Your task to perform on an android device: open a new tab in the chrome app Image 0: 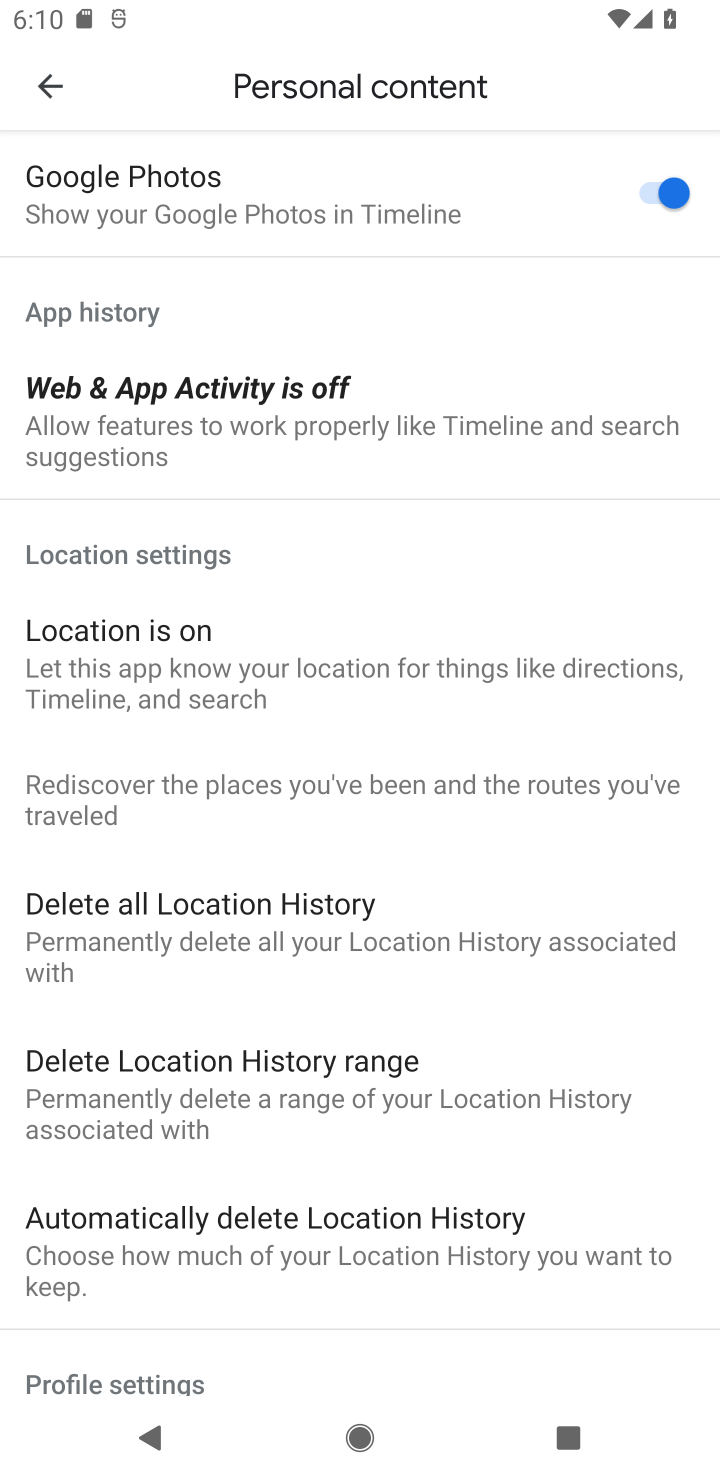
Step 0: press home button
Your task to perform on an android device: open a new tab in the chrome app Image 1: 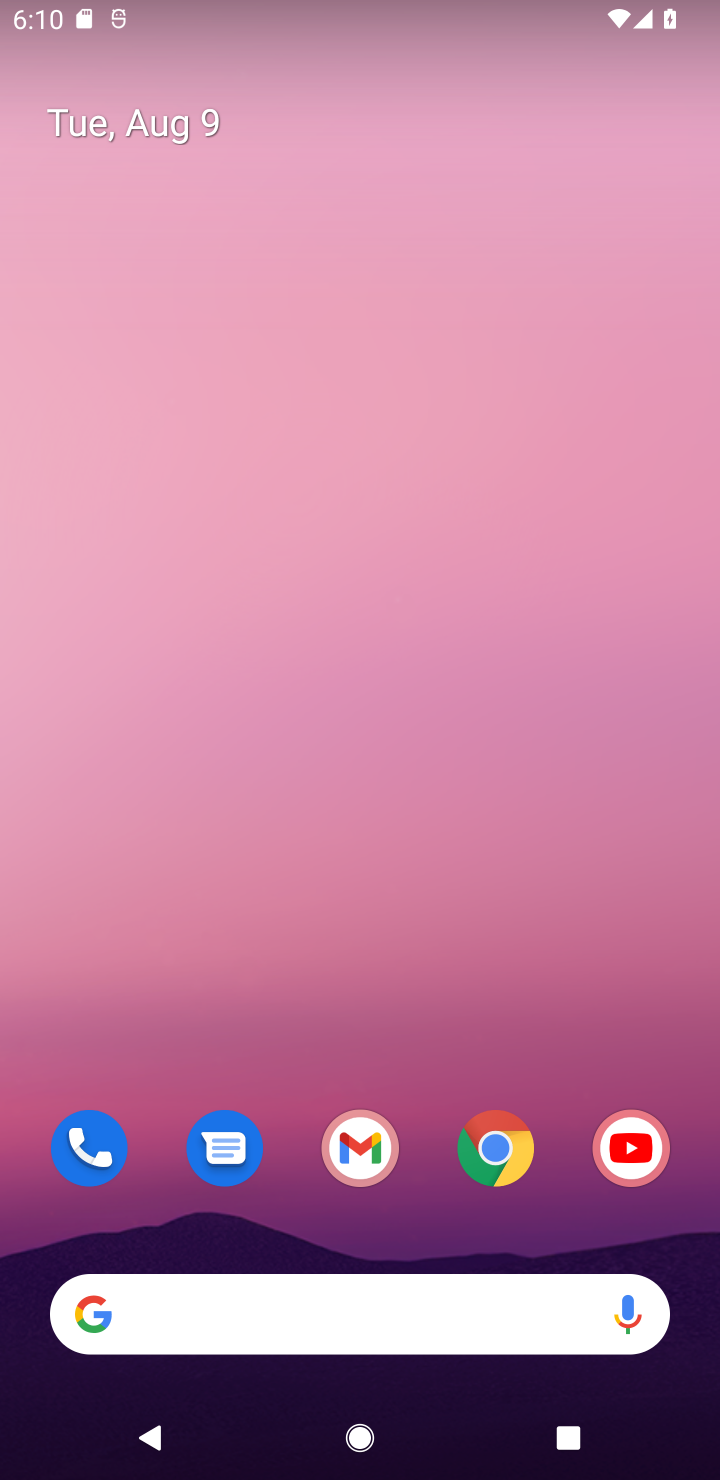
Step 1: click (494, 1148)
Your task to perform on an android device: open a new tab in the chrome app Image 2: 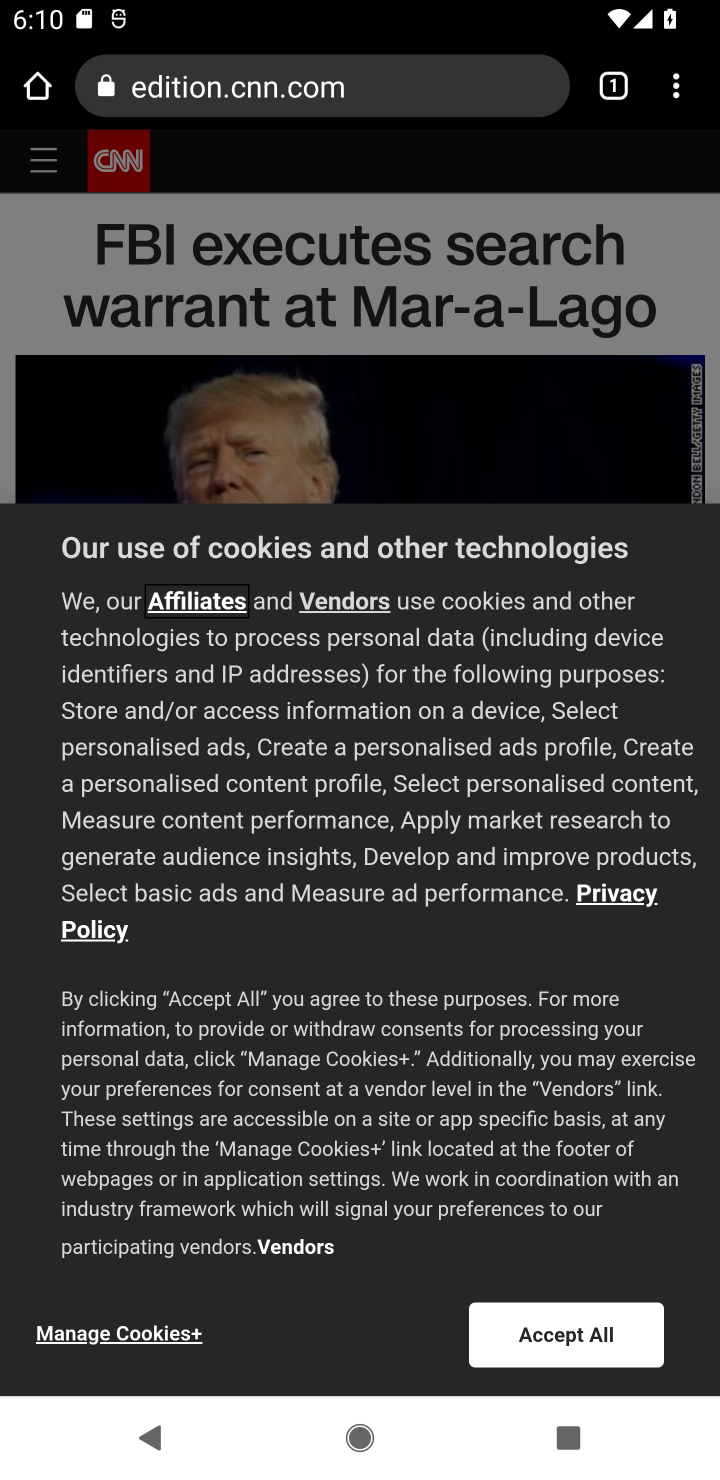
Step 2: click (674, 75)
Your task to perform on an android device: open a new tab in the chrome app Image 3: 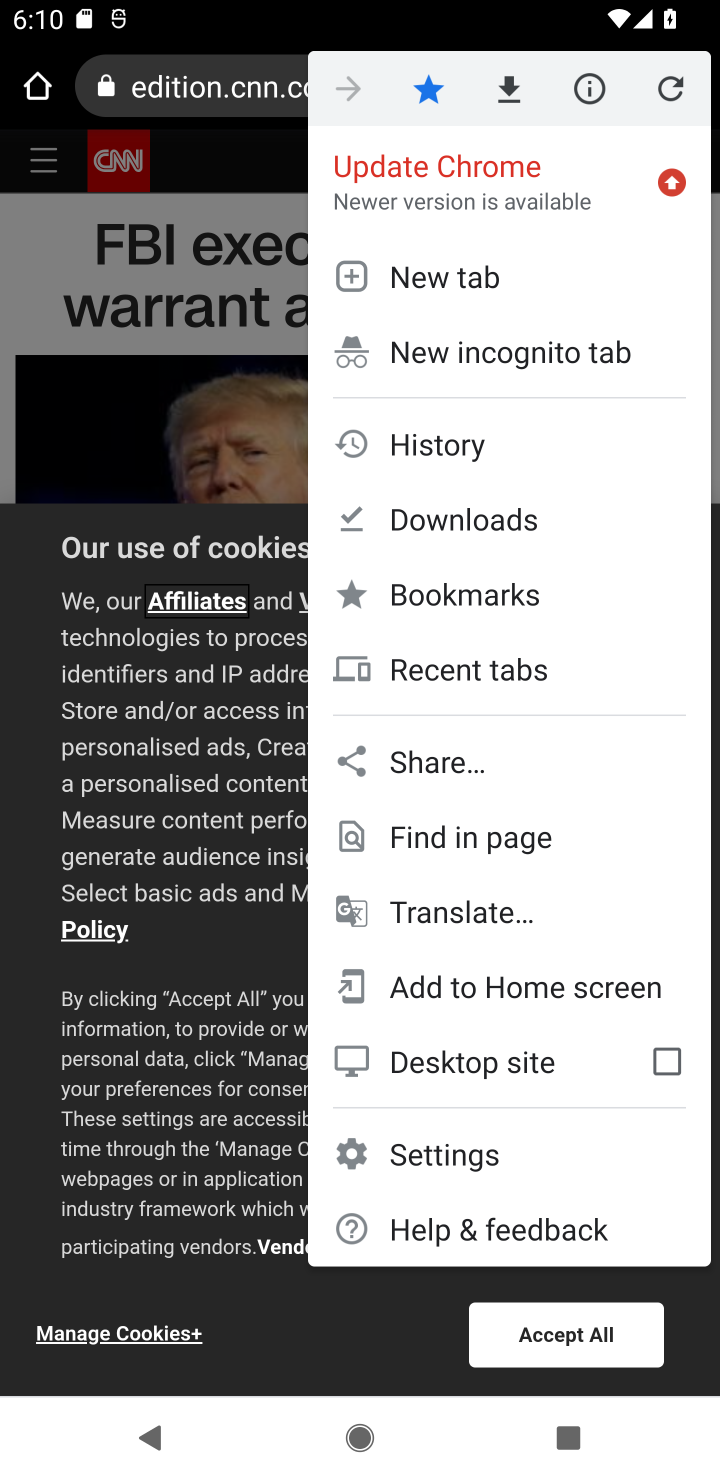
Step 3: click (480, 292)
Your task to perform on an android device: open a new tab in the chrome app Image 4: 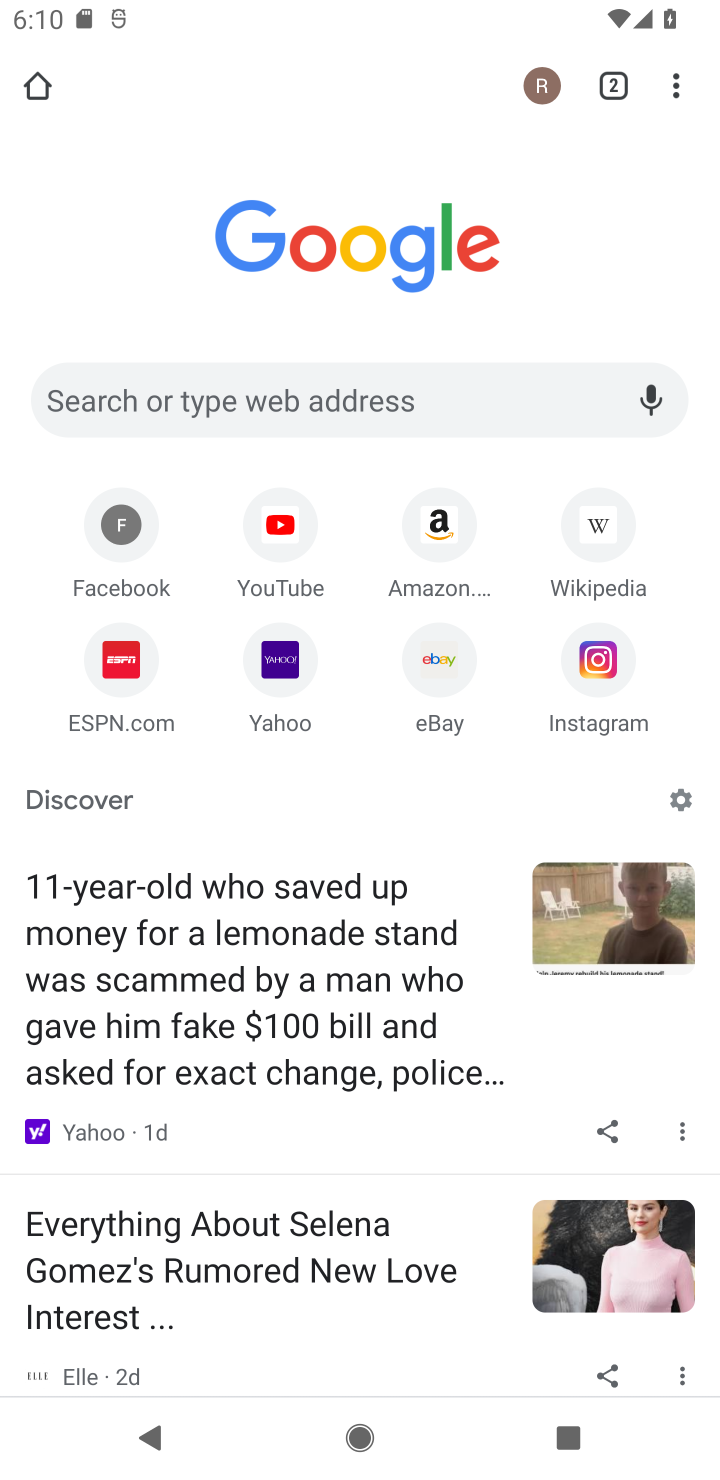
Step 4: task complete